Your task to perform on an android device: Open Chrome and go to the settings page Image 0: 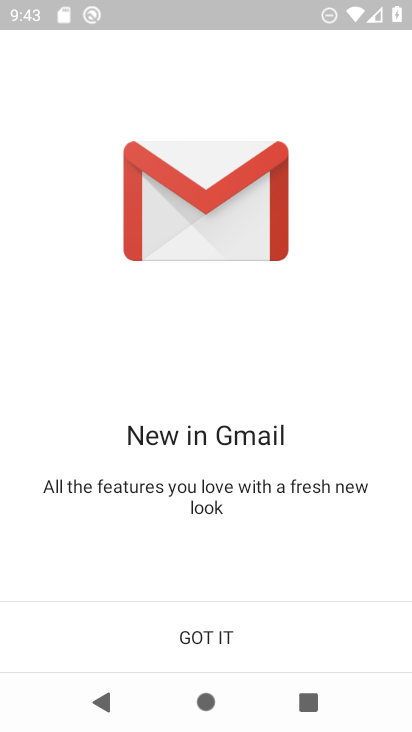
Step 0: press home button
Your task to perform on an android device: Open Chrome and go to the settings page Image 1: 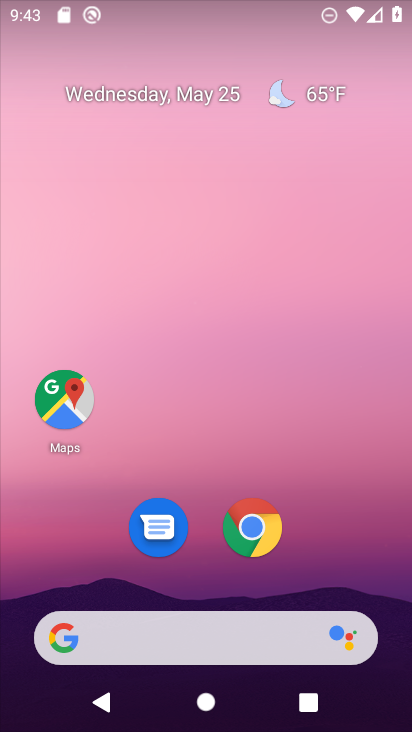
Step 1: click (254, 530)
Your task to perform on an android device: Open Chrome and go to the settings page Image 2: 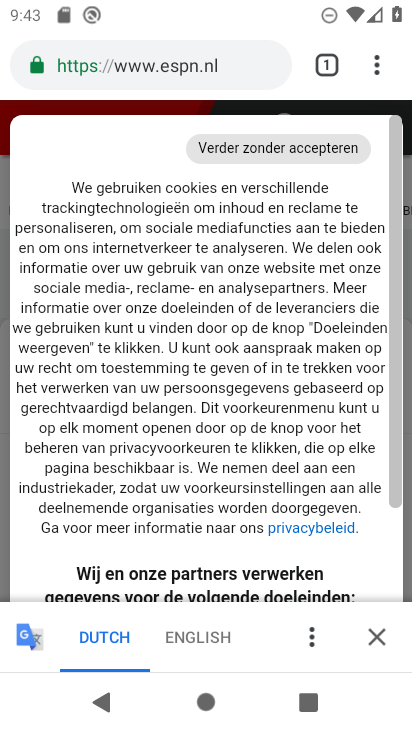
Step 2: click (376, 65)
Your task to perform on an android device: Open Chrome and go to the settings page Image 3: 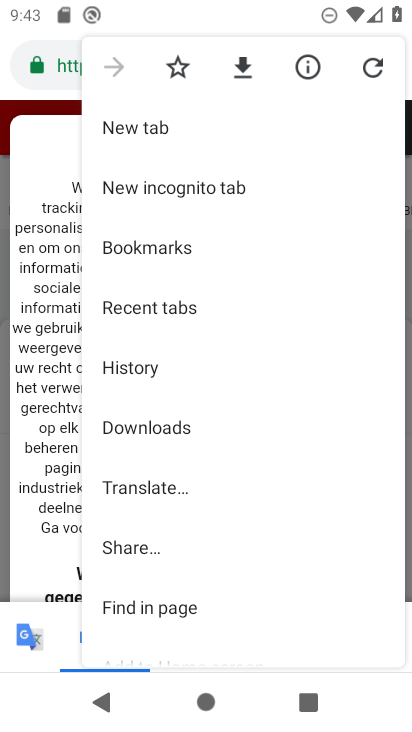
Step 3: drag from (189, 461) to (298, 184)
Your task to perform on an android device: Open Chrome and go to the settings page Image 4: 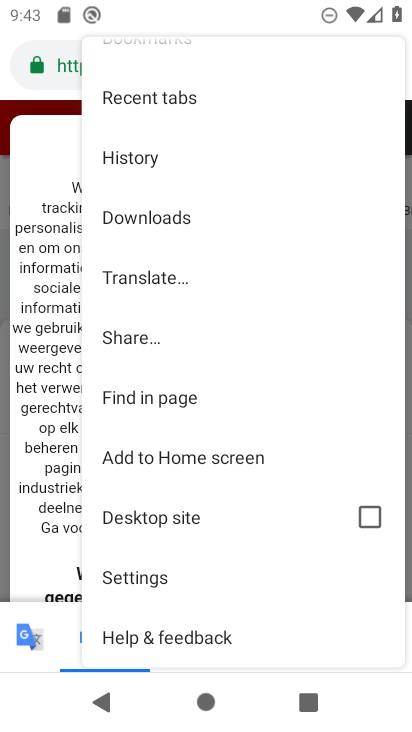
Step 4: click (155, 584)
Your task to perform on an android device: Open Chrome and go to the settings page Image 5: 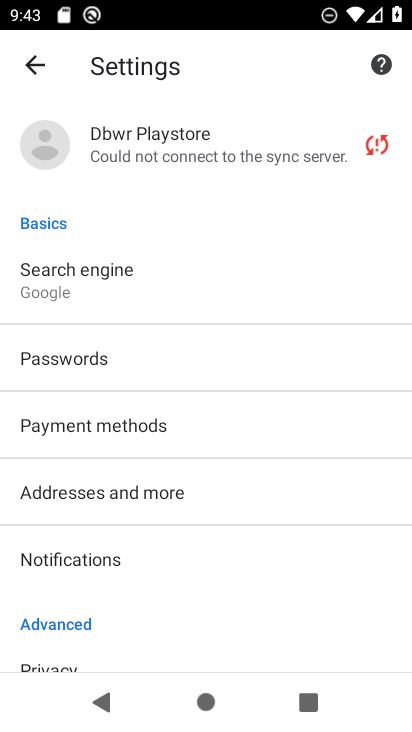
Step 5: task complete